Your task to perform on an android device: show emergency info Image 0: 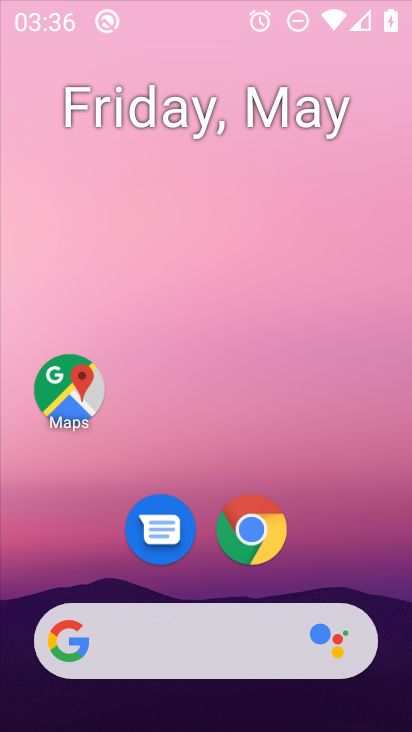
Step 0: press home button
Your task to perform on an android device: show emergency info Image 1: 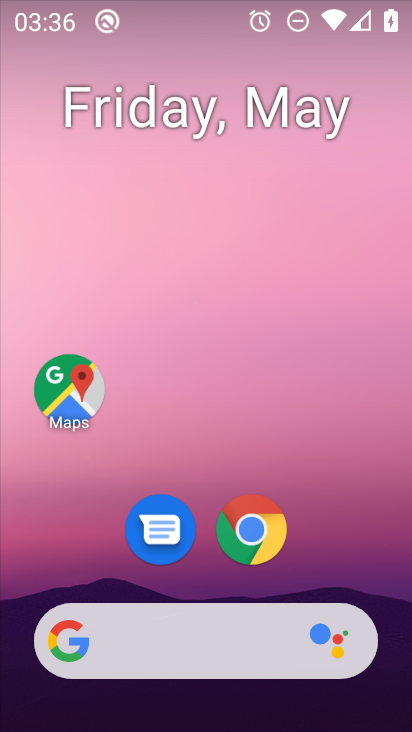
Step 1: drag from (389, 671) to (377, 295)
Your task to perform on an android device: show emergency info Image 2: 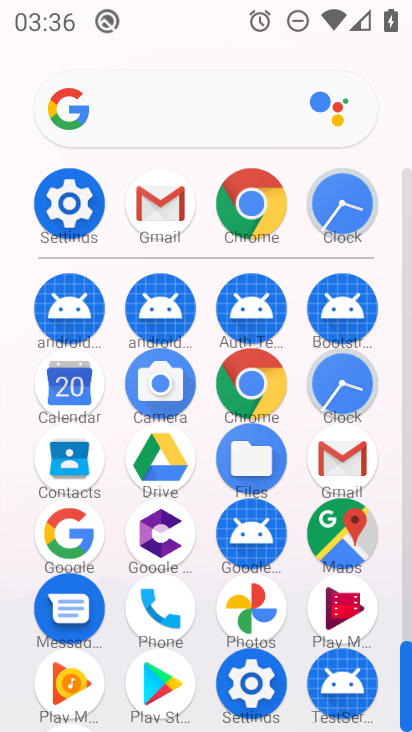
Step 2: click (253, 669)
Your task to perform on an android device: show emergency info Image 3: 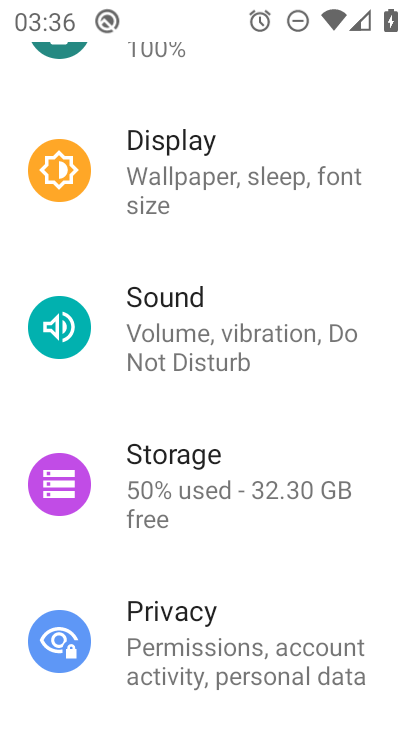
Step 3: drag from (375, 688) to (331, 193)
Your task to perform on an android device: show emergency info Image 4: 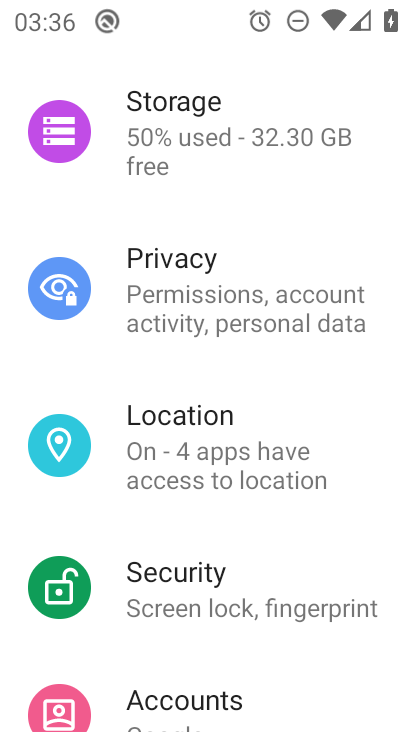
Step 4: drag from (360, 694) to (294, 317)
Your task to perform on an android device: show emergency info Image 5: 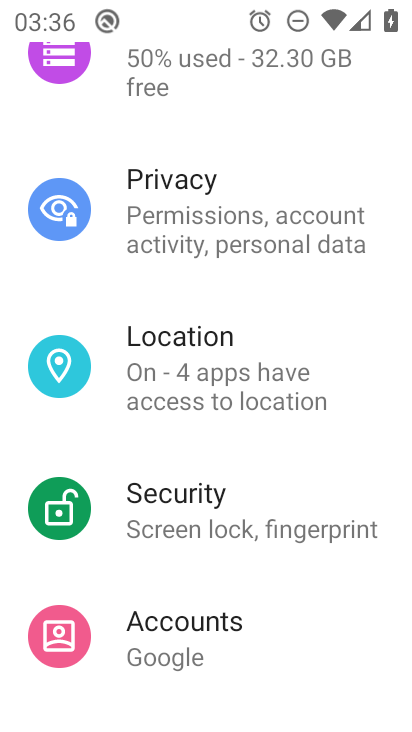
Step 5: drag from (335, 663) to (298, 267)
Your task to perform on an android device: show emergency info Image 6: 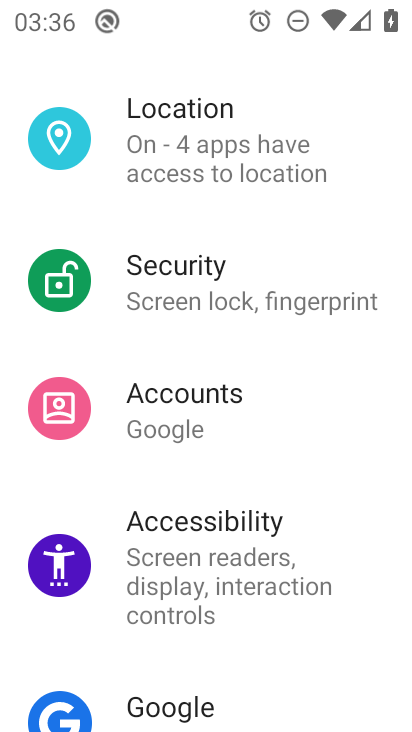
Step 6: drag from (294, 699) to (286, 400)
Your task to perform on an android device: show emergency info Image 7: 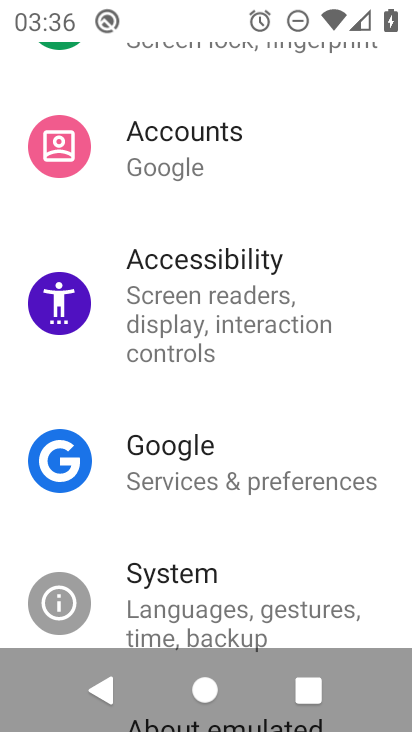
Step 7: drag from (368, 623) to (326, 198)
Your task to perform on an android device: show emergency info Image 8: 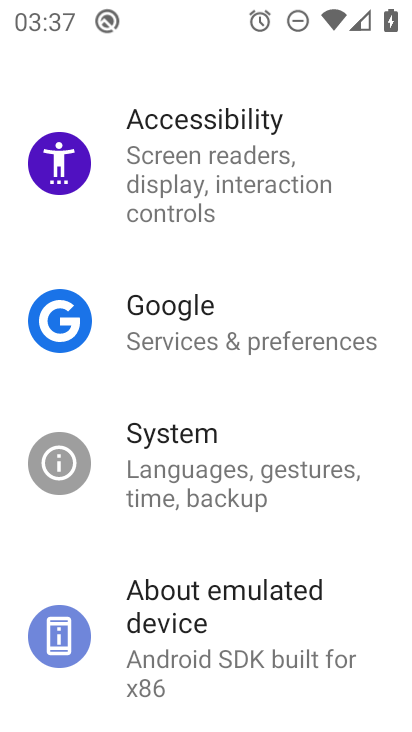
Step 8: click (194, 641)
Your task to perform on an android device: show emergency info Image 9: 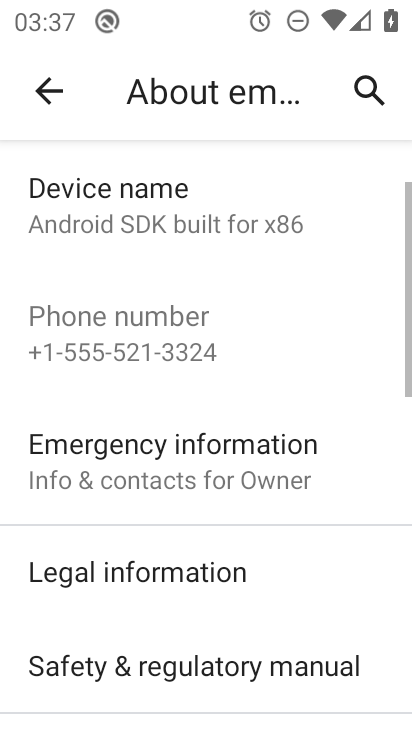
Step 9: click (145, 474)
Your task to perform on an android device: show emergency info Image 10: 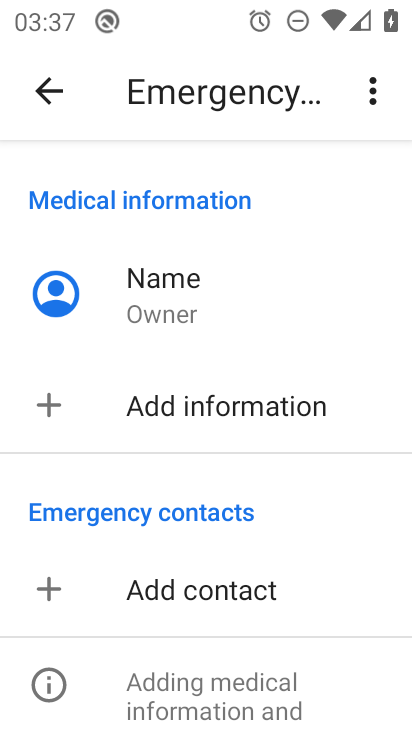
Step 10: task complete